Your task to perform on an android device: delete location history Image 0: 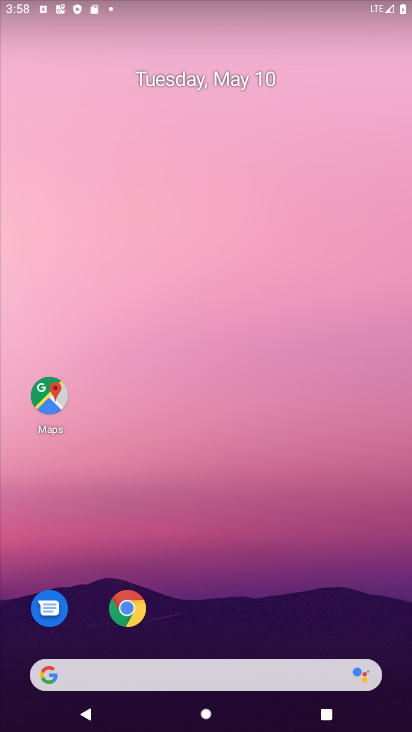
Step 0: click (46, 391)
Your task to perform on an android device: delete location history Image 1: 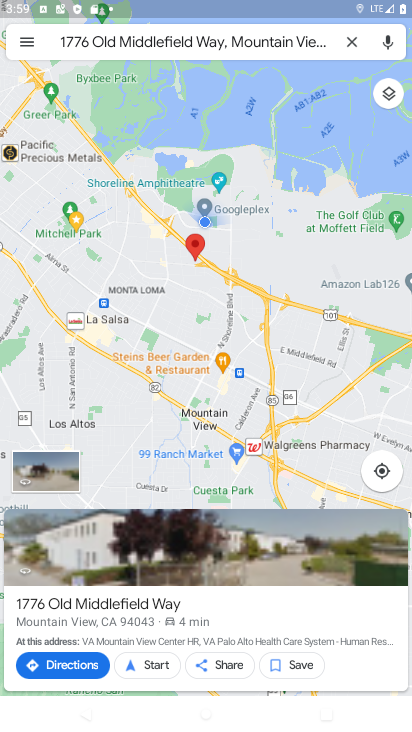
Step 1: click (23, 41)
Your task to perform on an android device: delete location history Image 2: 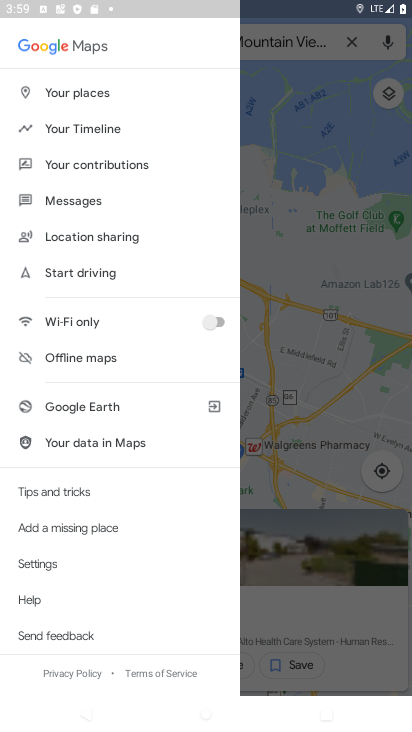
Step 2: click (37, 556)
Your task to perform on an android device: delete location history Image 3: 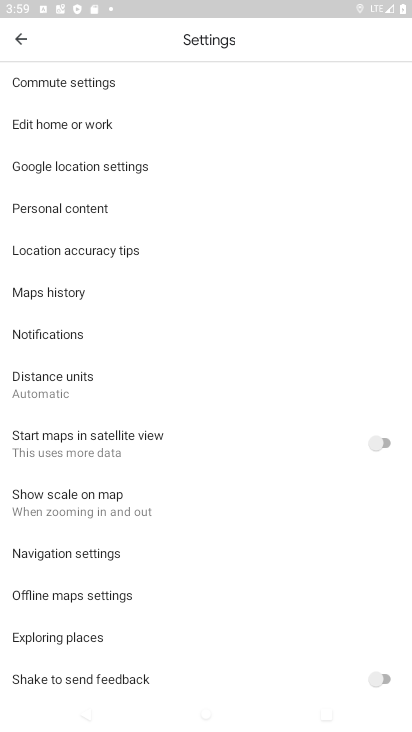
Step 3: click (60, 204)
Your task to perform on an android device: delete location history Image 4: 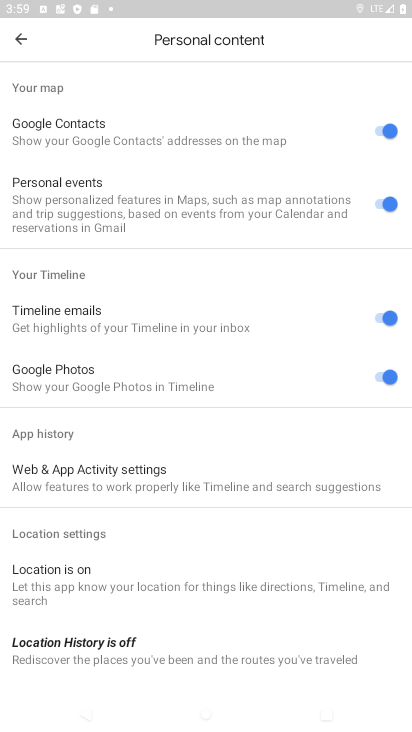
Step 4: drag from (107, 621) to (180, 243)
Your task to perform on an android device: delete location history Image 5: 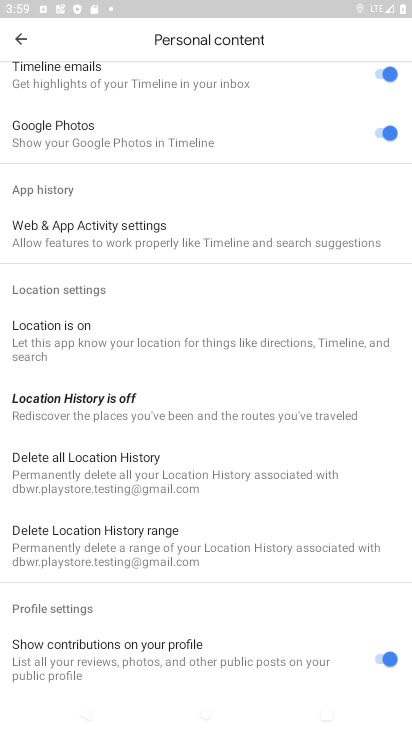
Step 5: click (52, 468)
Your task to perform on an android device: delete location history Image 6: 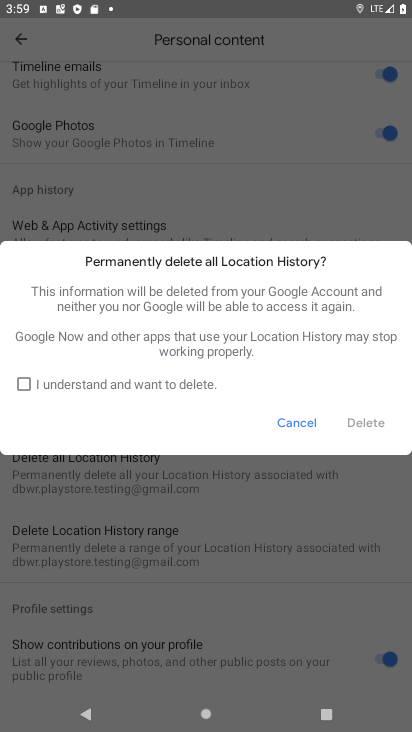
Step 6: click (26, 384)
Your task to perform on an android device: delete location history Image 7: 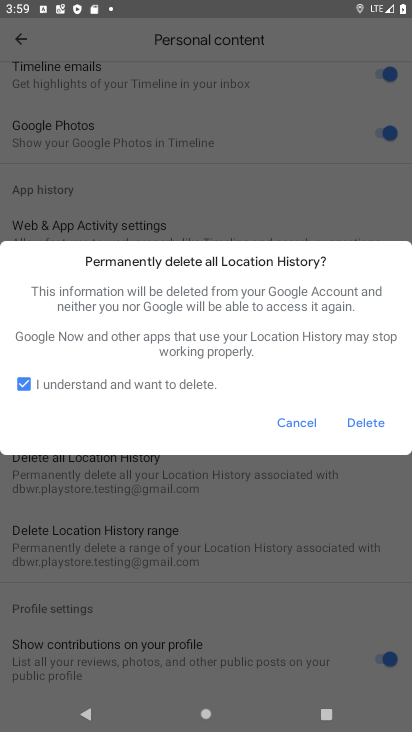
Step 7: click (369, 419)
Your task to perform on an android device: delete location history Image 8: 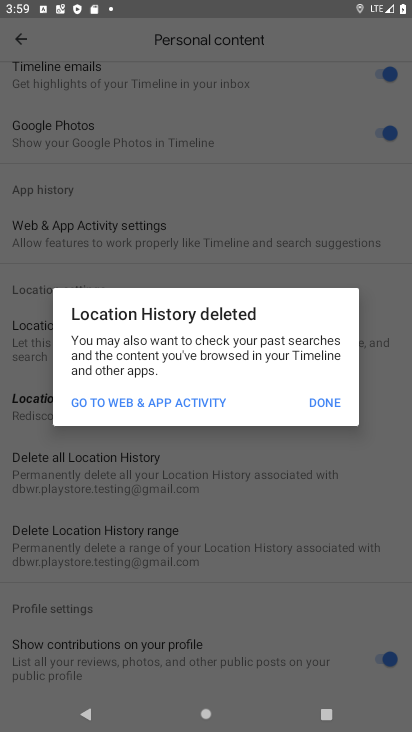
Step 8: click (326, 406)
Your task to perform on an android device: delete location history Image 9: 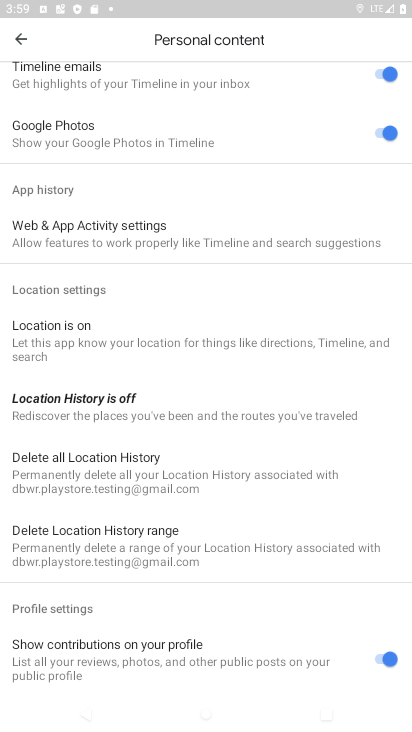
Step 9: task complete